Your task to perform on an android device: Go to settings Image 0: 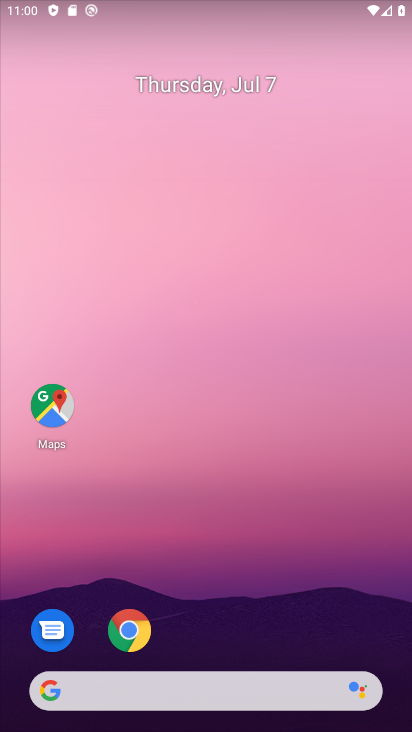
Step 0: drag from (378, 652) to (310, 178)
Your task to perform on an android device: Go to settings Image 1: 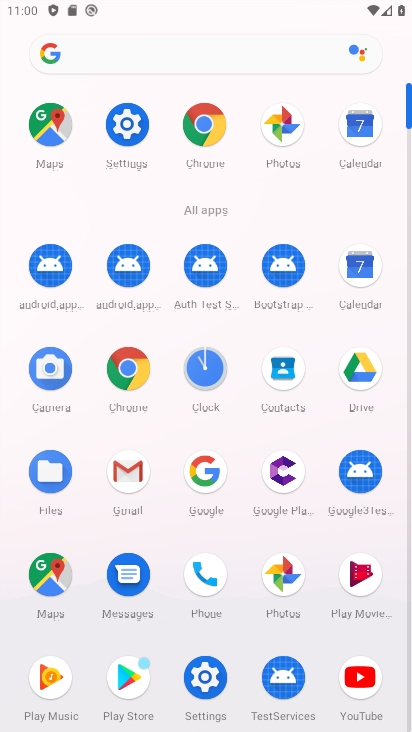
Step 1: click (201, 677)
Your task to perform on an android device: Go to settings Image 2: 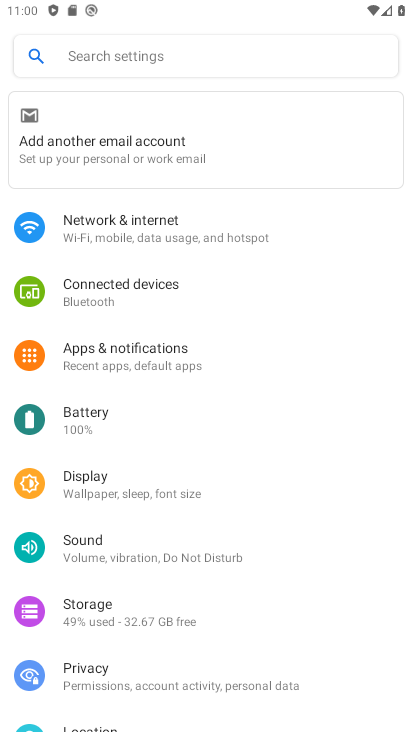
Step 2: task complete